Your task to perform on an android device: turn on showing notifications on the lock screen Image 0: 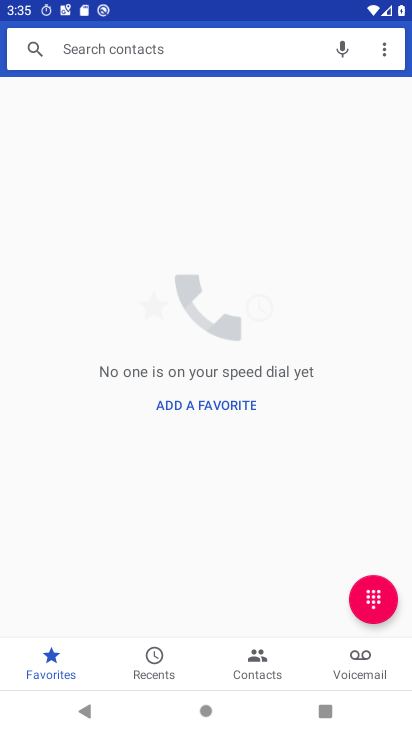
Step 0: press home button
Your task to perform on an android device: turn on showing notifications on the lock screen Image 1: 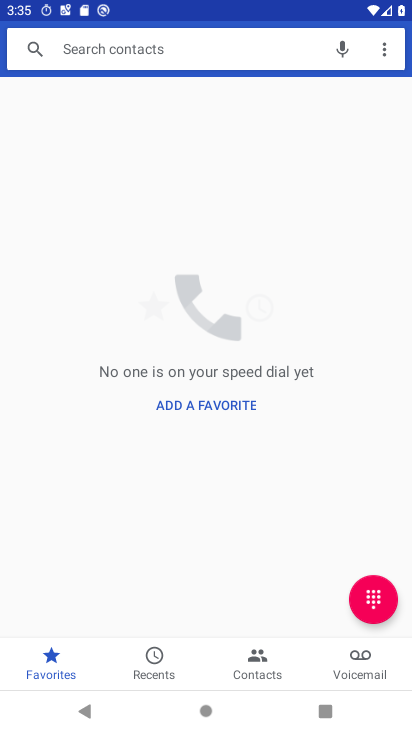
Step 1: press home button
Your task to perform on an android device: turn on showing notifications on the lock screen Image 2: 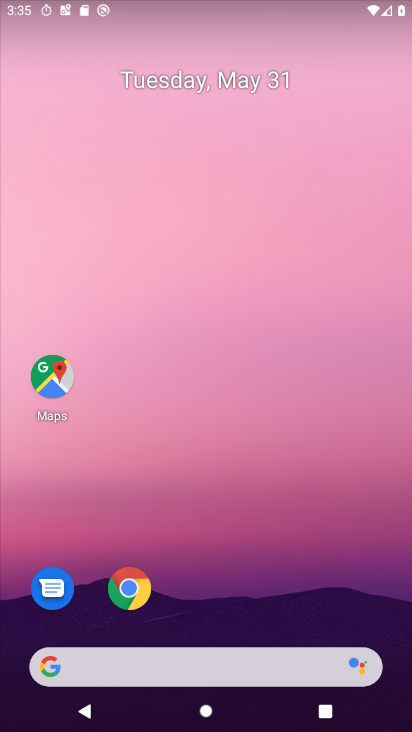
Step 2: drag from (266, 664) to (298, 220)
Your task to perform on an android device: turn on showing notifications on the lock screen Image 3: 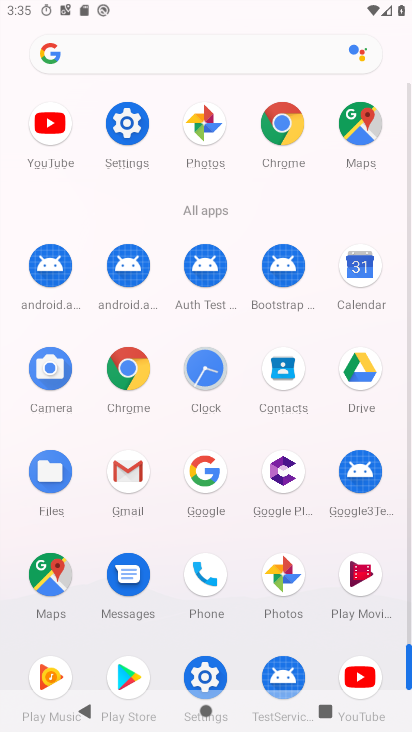
Step 3: click (137, 134)
Your task to perform on an android device: turn on showing notifications on the lock screen Image 4: 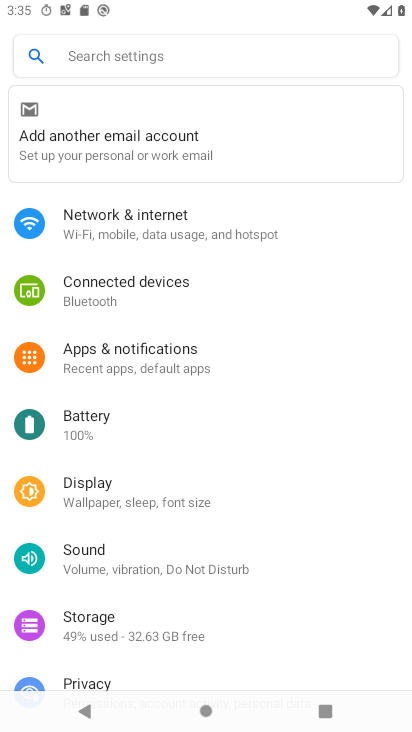
Step 4: click (188, 365)
Your task to perform on an android device: turn on showing notifications on the lock screen Image 5: 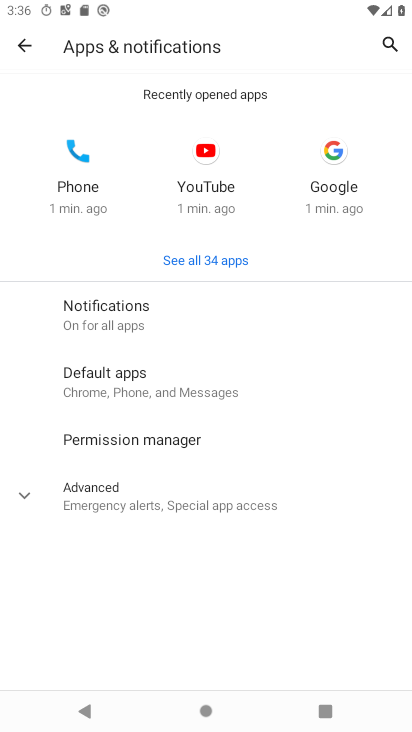
Step 5: click (174, 312)
Your task to perform on an android device: turn on showing notifications on the lock screen Image 6: 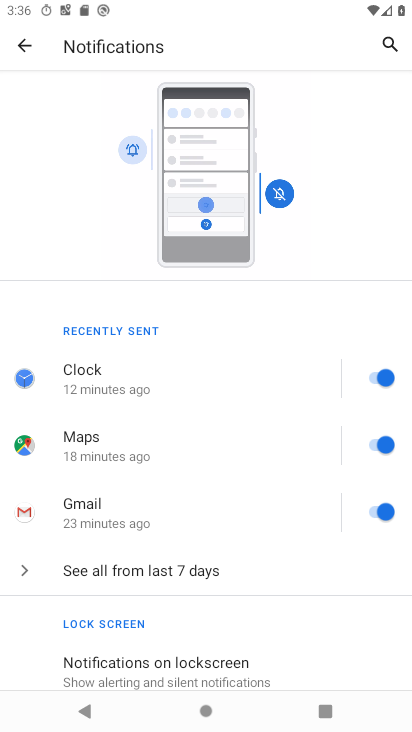
Step 6: drag from (184, 585) to (219, 313)
Your task to perform on an android device: turn on showing notifications on the lock screen Image 7: 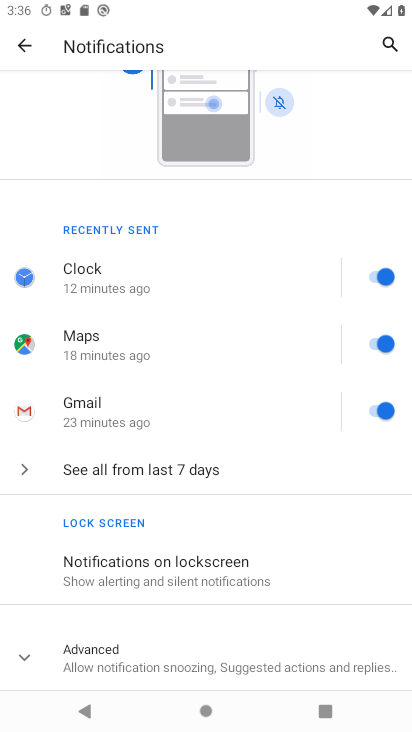
Step 7: click (189, 584)
Your task to perform on an android device: turn on showing notifications on the lock screen Image 8: 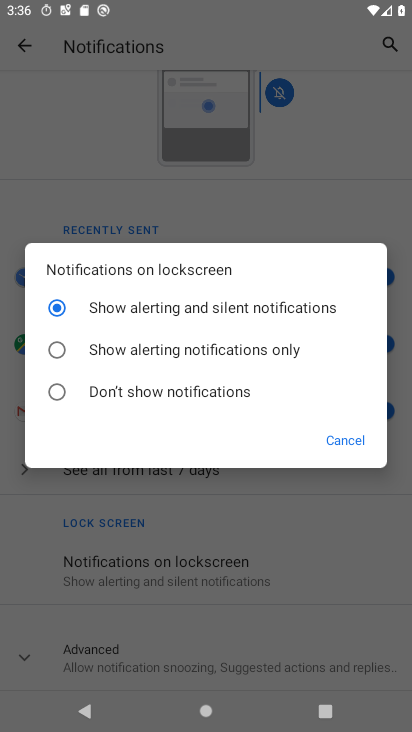
Step 8: task complete